Your task to perform on an android device: Open the calendar app, open the side menu, and click the "Day" option Image 0: 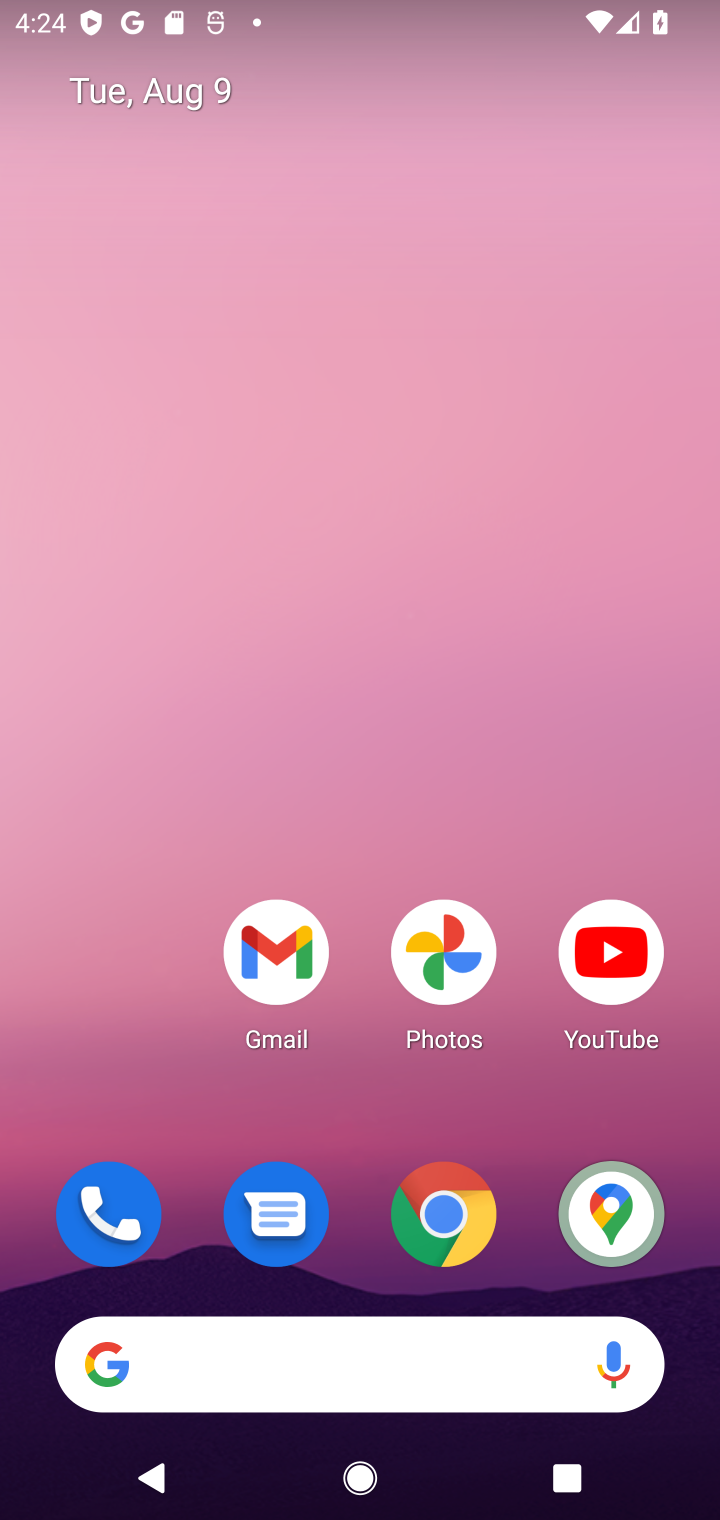
Step 0: press home button
Your task to perform on an android device: Open the calendar app, open the side menu, and click the "Day" option Image 1: 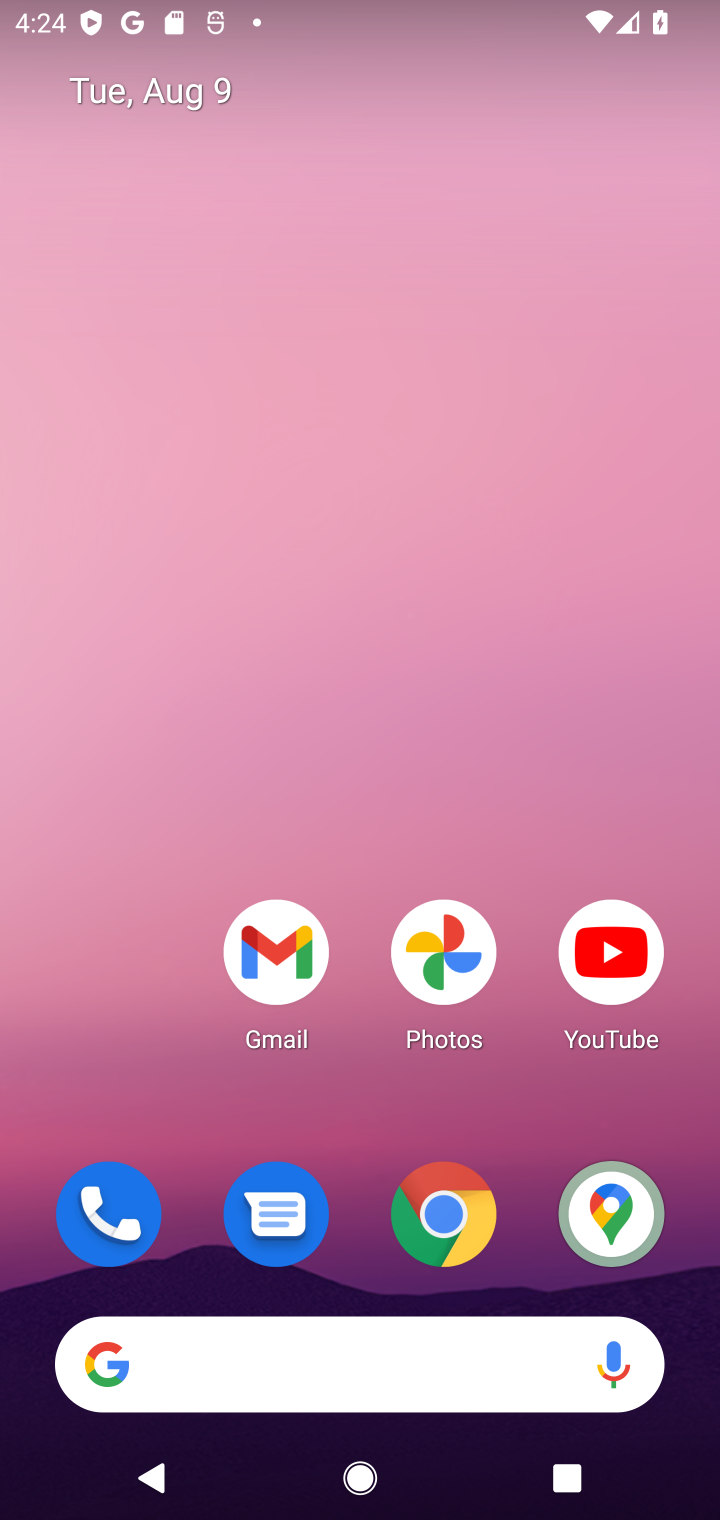
Step 1: drag from (458, 1421) to (364, 311)
Your task to perform on an android device: Open the calendar app, open the side menu, and click the "Day" option Image 2: 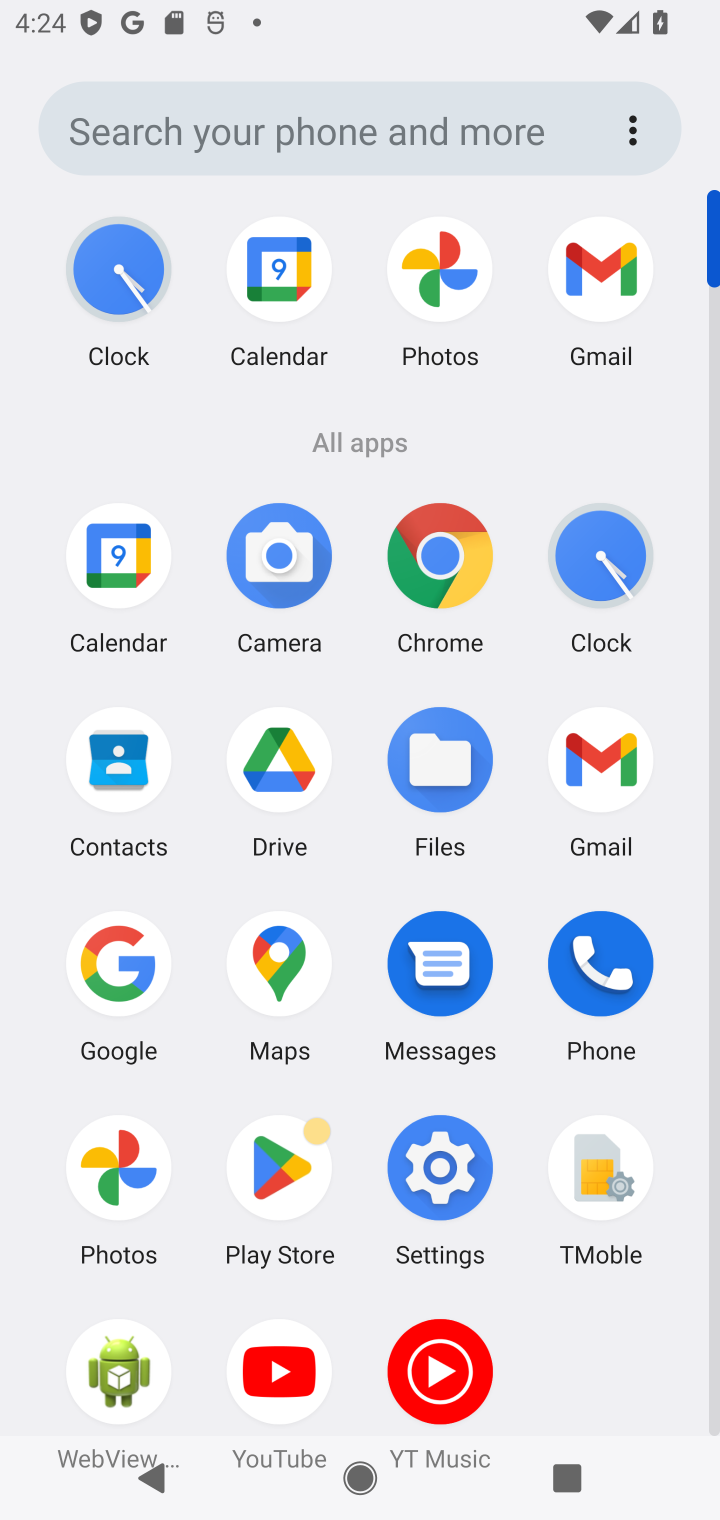
Step 2: click (128, 590)
Your task to perform on an android device: Open the calendar app, open the side menu, and click the "Day" option Image 3: 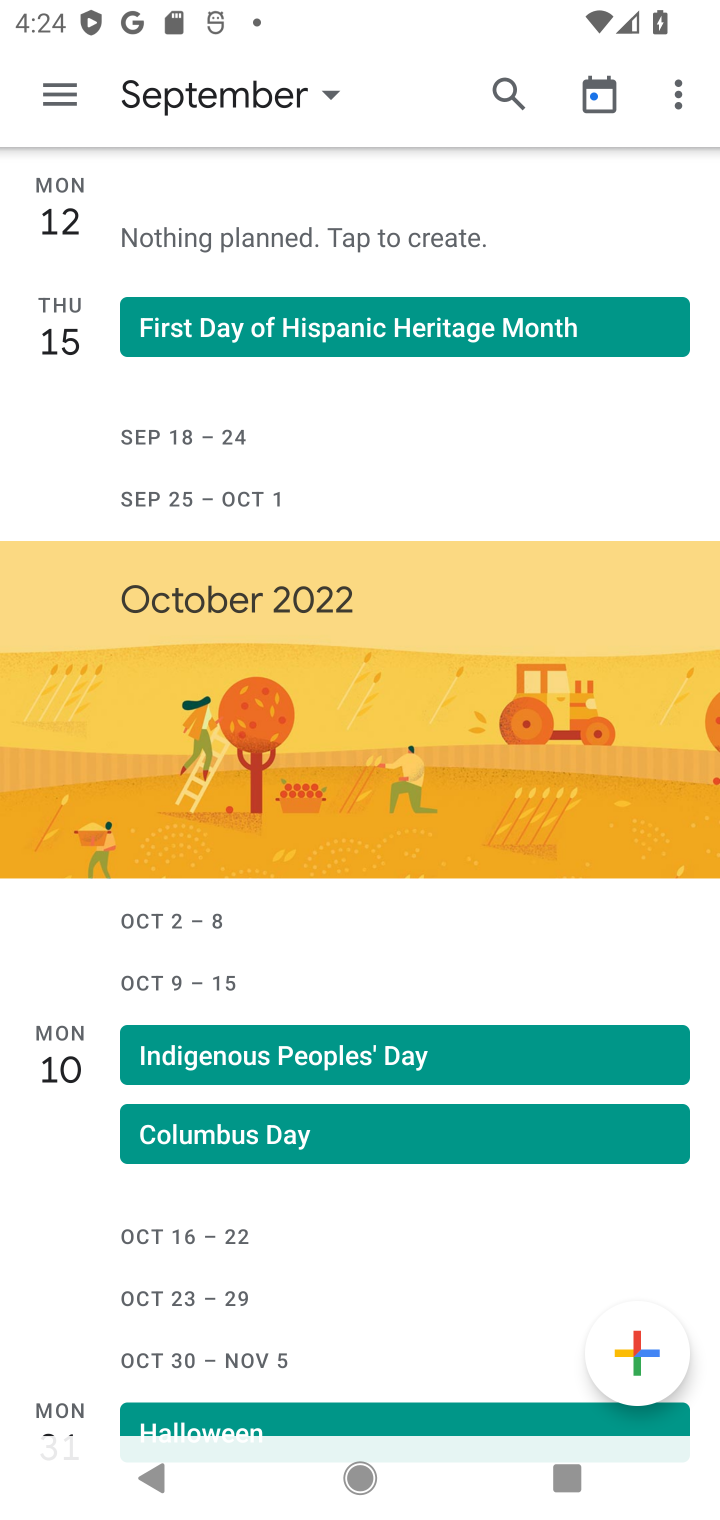
Step 3: click (53, 112)
Your task to perform on an android device: Open the calendar app, open the side menu, and click the "Day" option Image 4: 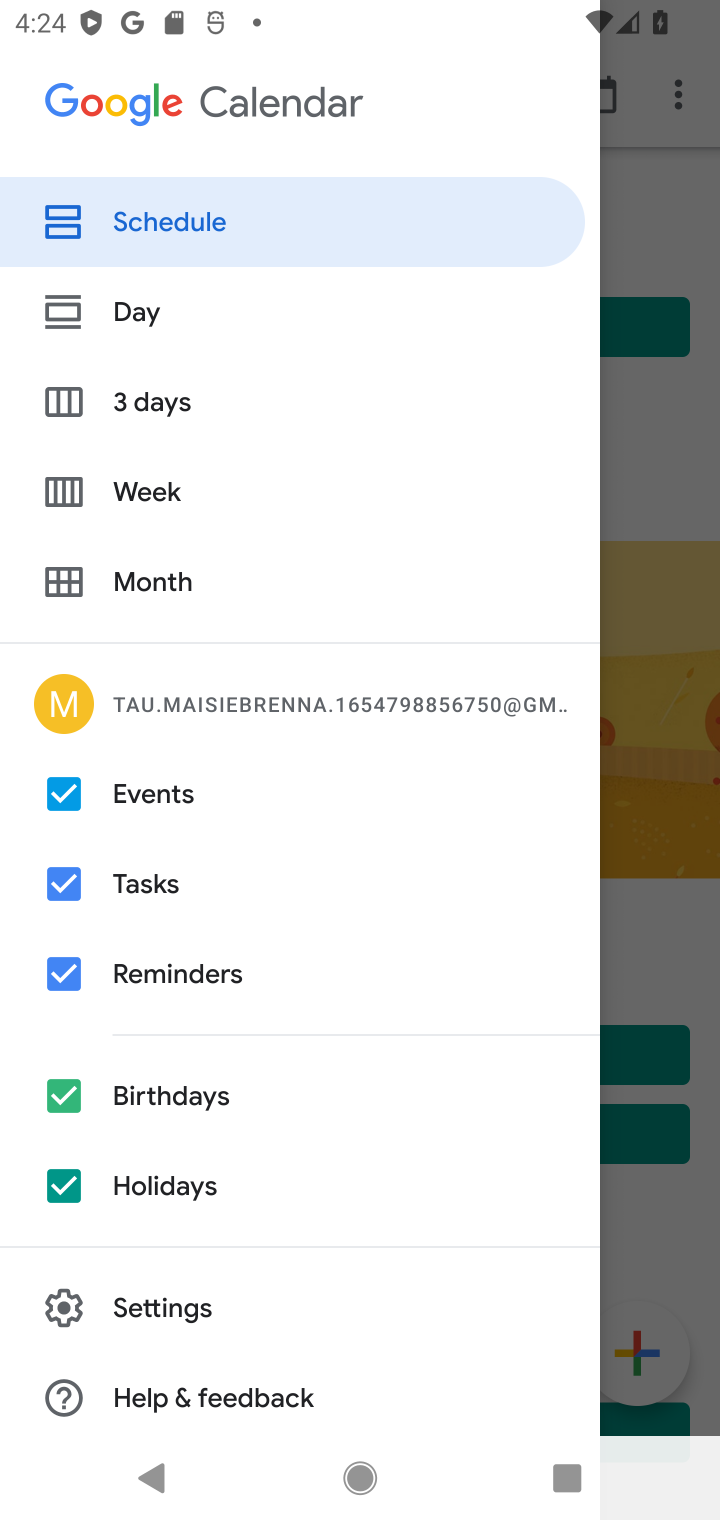
Step 4: click (125, 312)
Your task to perform on an android device: Open the calendar app, open the side menu, and click the "Day" option Image 5: 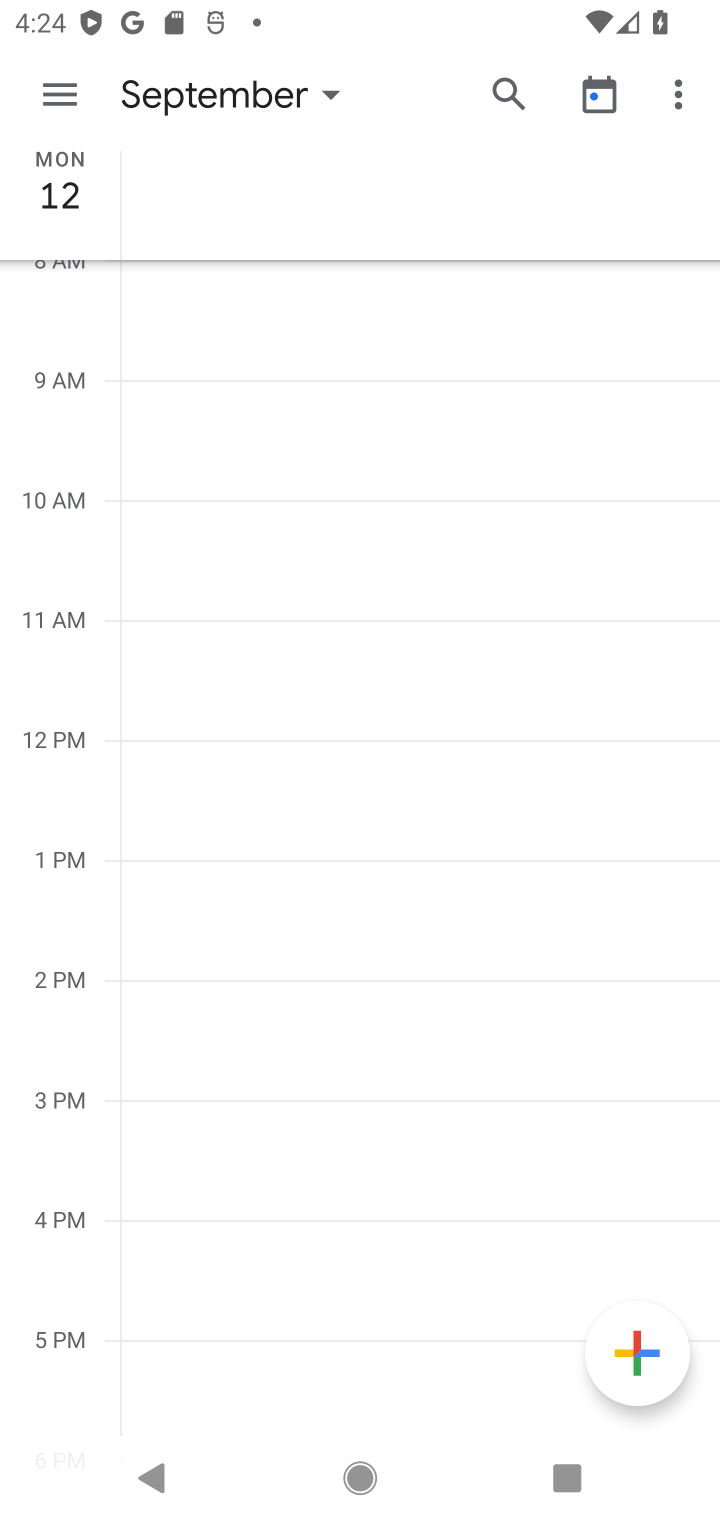
Step 5: click (45, 202)
Your task to perform on an android device: Open the calendar app, open the side menu, and click the "Day" option Image 6: 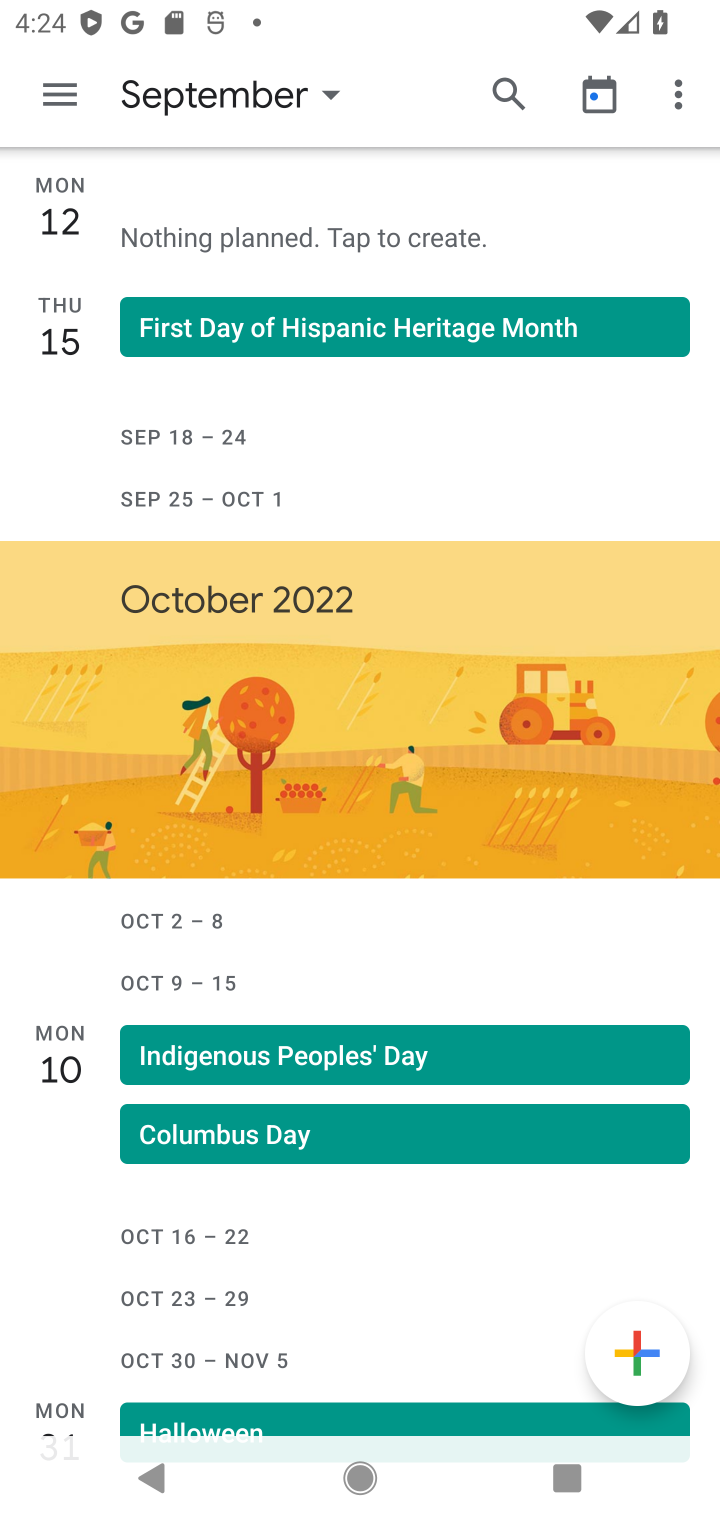
Step 6: click (80, 212)
Your task to perform on an android device: Open the calendar app, open the side menu, and click the "Day" option Image 7: 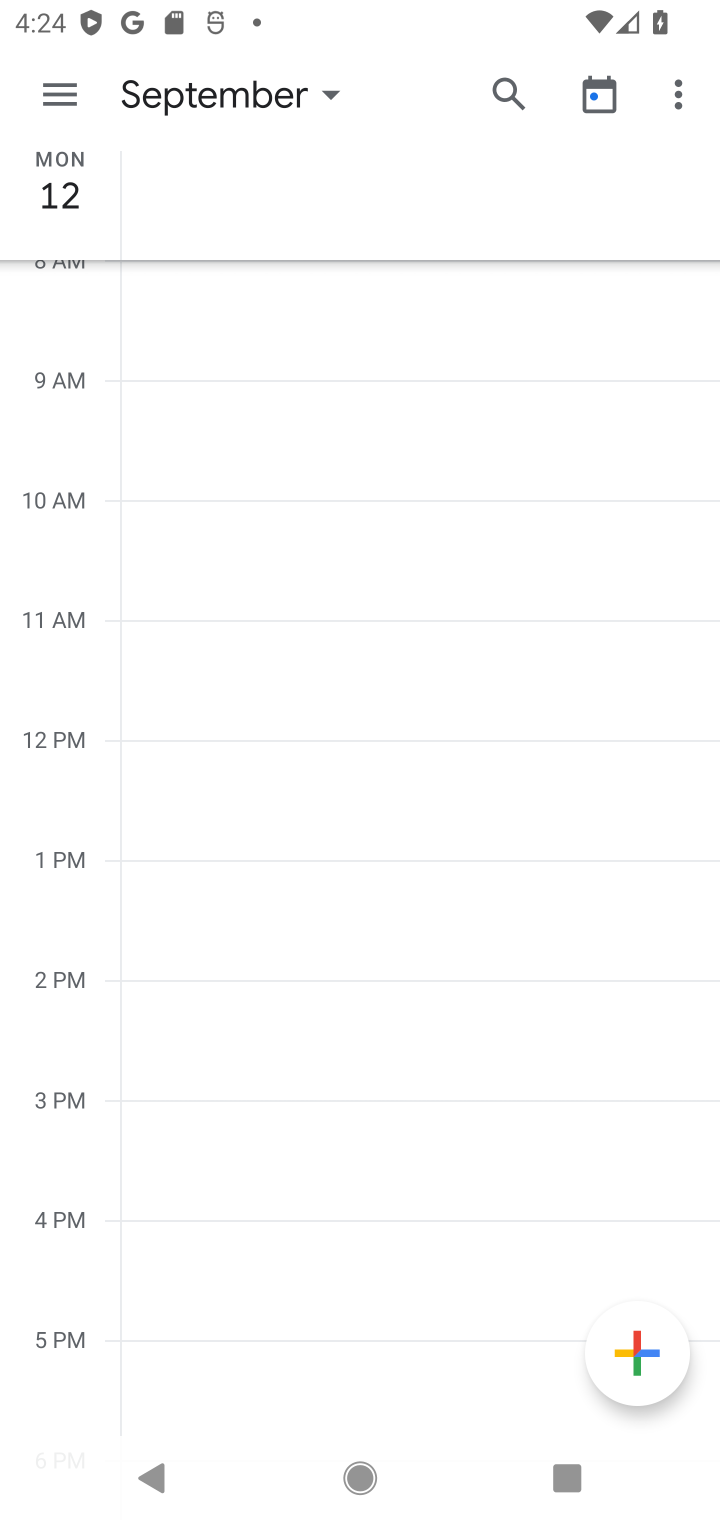
Step 7: click (80, 212)
Your task to perform on an android device: Open the calendar app, open the side menu, and click the "Day" option Image 8: 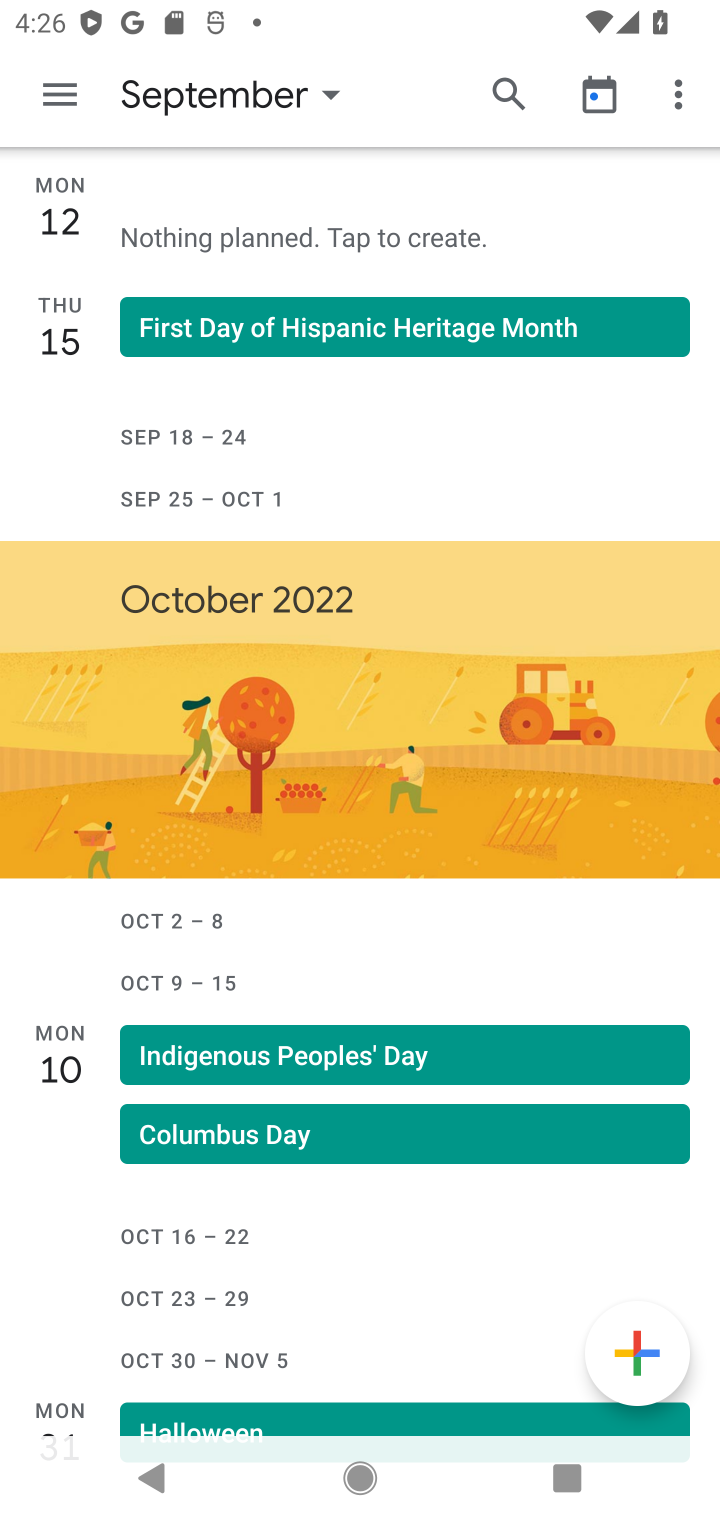
Step 8: task complete